Your task to perform on an android device: Do I have any events tomorrow? Image 0: 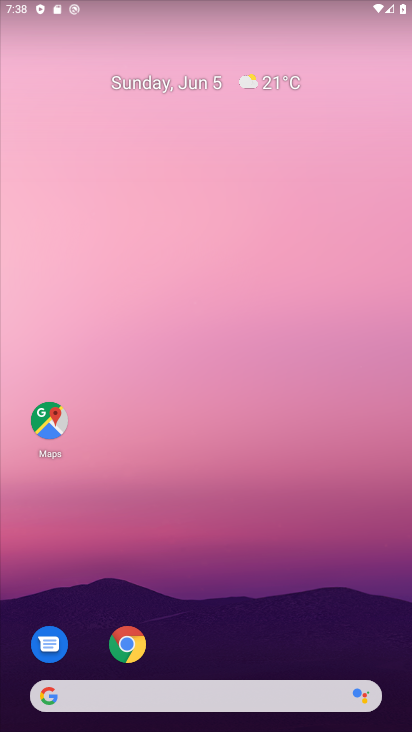
Step 0: drag from (291, 645) to (184, 6)
Your task to perform on an android device: Do I have any events tomorrow? Image 1: 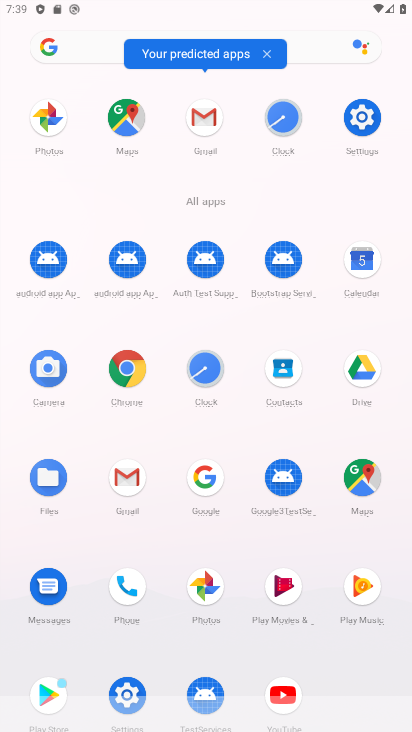
Step 1: click (348, 253)
Your task to perform on an android device: Do I have any events tomorrow? Image 2: 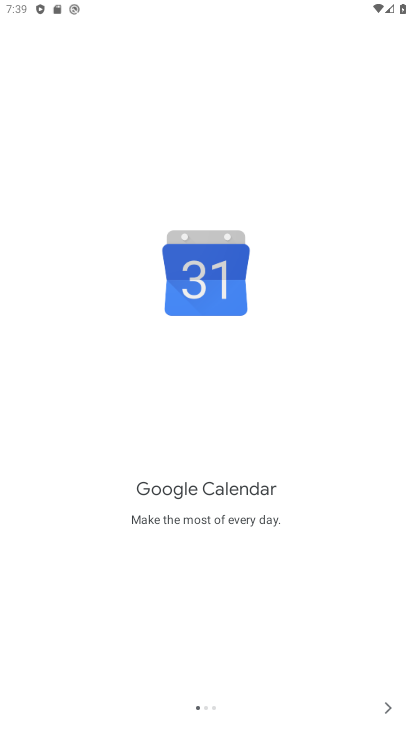
Step 2: task complete